Your task to perform on an android device: find which apps use the phone's location Image 0: 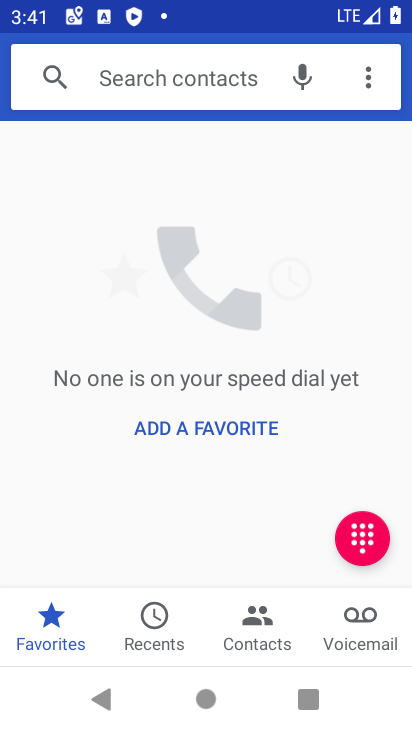
Step 0: press home button
Your task to perform on an android device: find which apps use the phone's location Image 1: 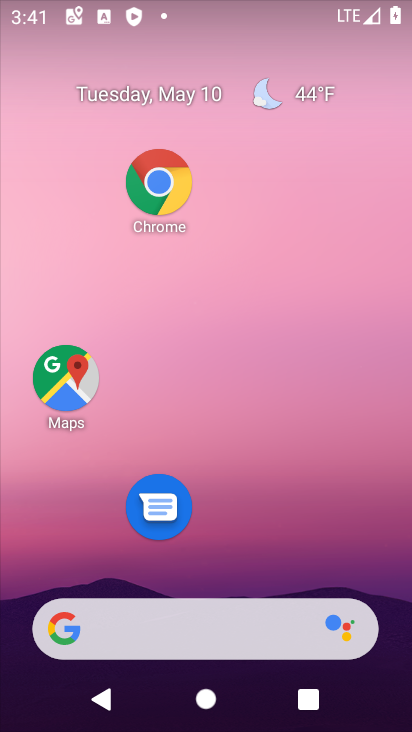
Step 1: drag from (311, 521) to (279, 53)
Your task to perform on an android device: find which apps use the phone's location Image 2: 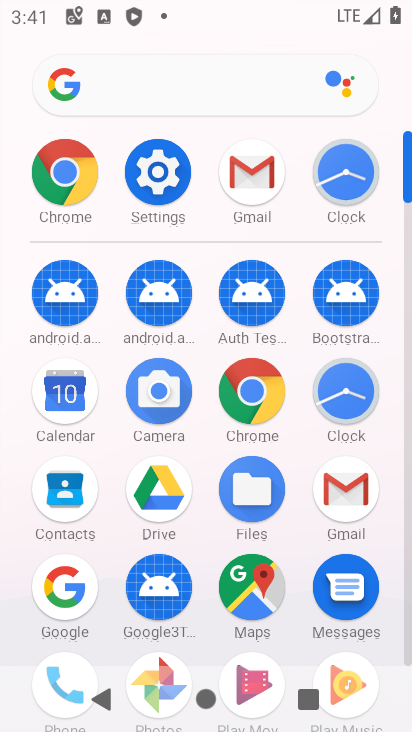
Step 2: click (182, 184)
Your task to perform on an android device: find which apps use the phone's location Image 3: 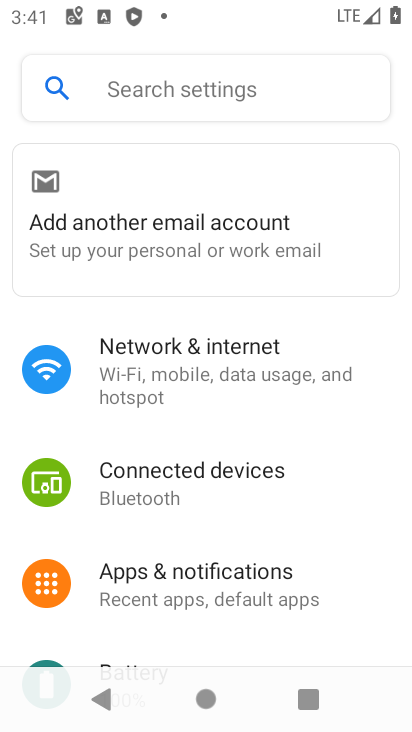
Step 3: drag from (236, 541) to (220, 225)
Your task to perform on an android device: find which apps use the phone's location Image 4: 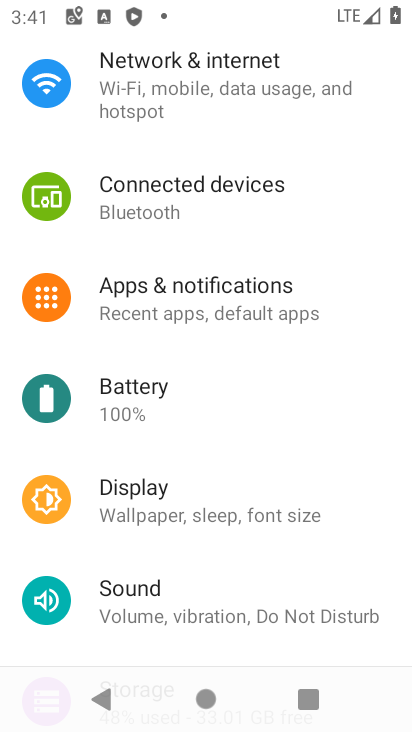
Step 4: drag from (212, 440) to (211, 290)
Your task to perform on an android device: find which apps use the phone's location Image 5: 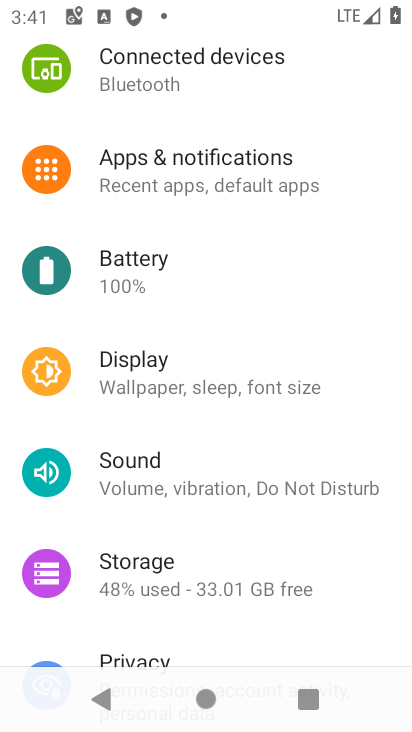
Step 5: drag from (227, 521) to (245, 285)
Your task to perform on an android device: find which apps use the phone's location Image 6: 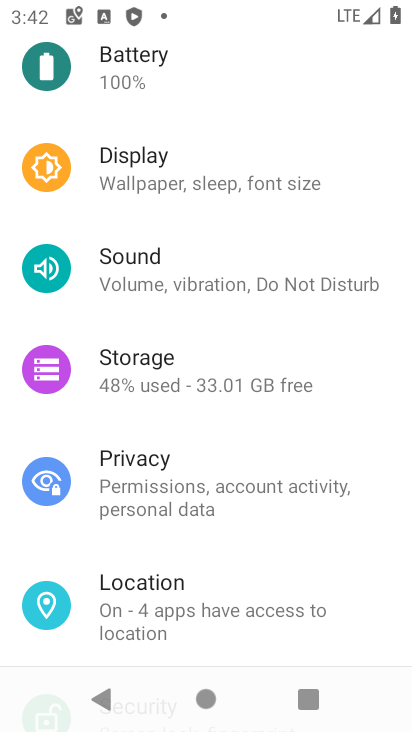
Step 6: click (236, 598)
Your task to perform on an android device: find which apps use the phone's location Image 7: 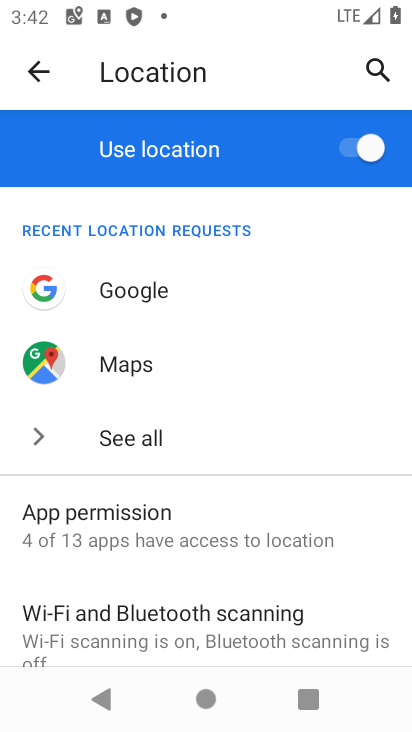
Step 7: click (107, 436)
Your task to perform on an android device: find which apps use the phone's location Image 8: 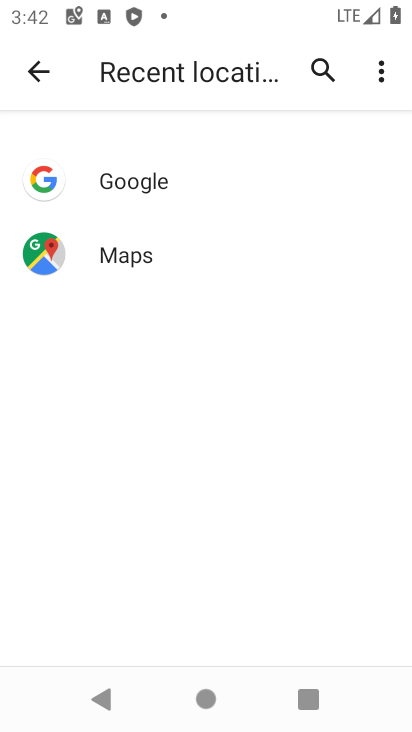
Step 8: task complete